Your task to perform on an android device: choose inbox layout in the gmail app Image 0: 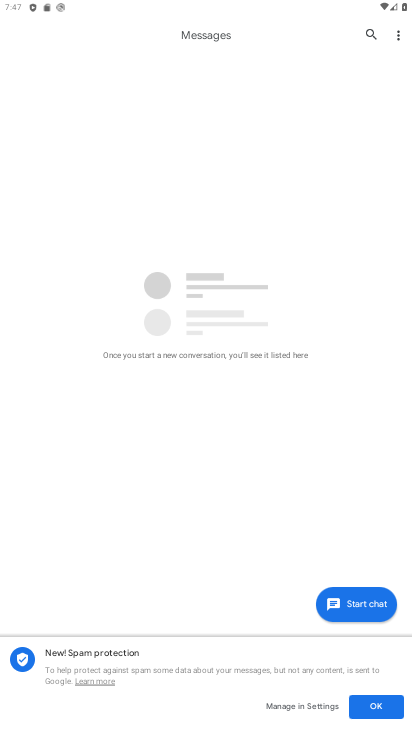
Step 0: press home button
Your task to perform on an android device: choose inbox layout in the gmail app Image 1: 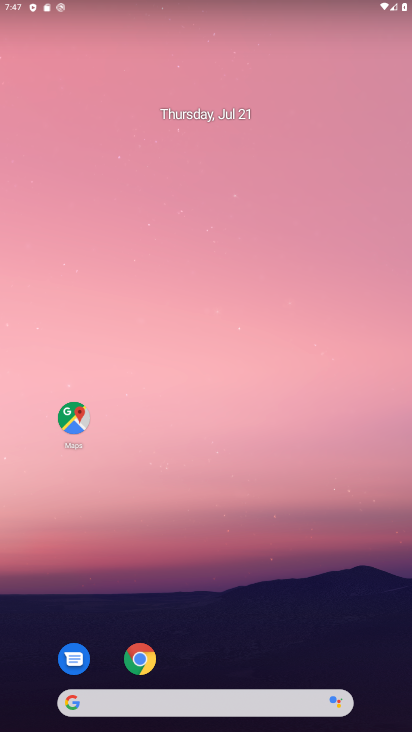
Step 1: drag from (306, 668) to (259, 143)
Your task to perform on an android device: choose inbox layout in the gmail app Image 2: 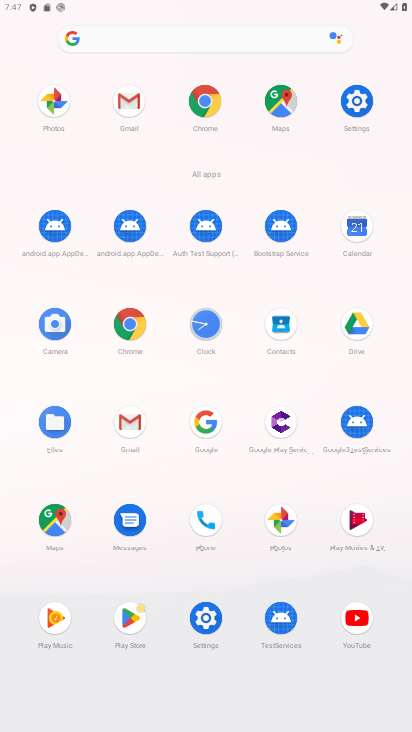
Step 2: click (129, 102)
Your task to perform on an android device: choose inbox layout in the gmail app Image 3: 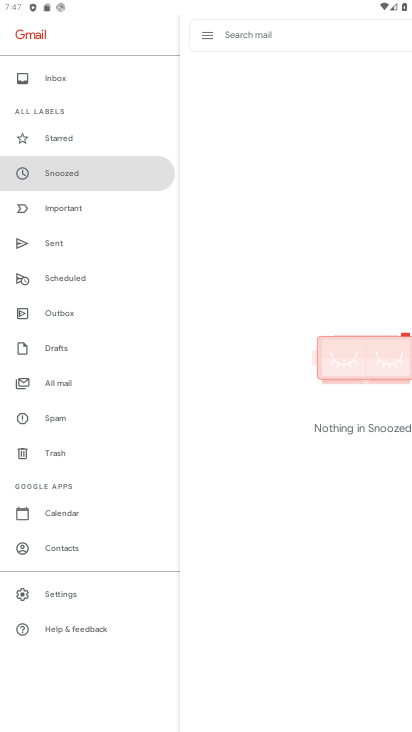
Step 3: click (74, 589)
Your task to perform on an android device: choose inbox layout in the gmail app Image 4: 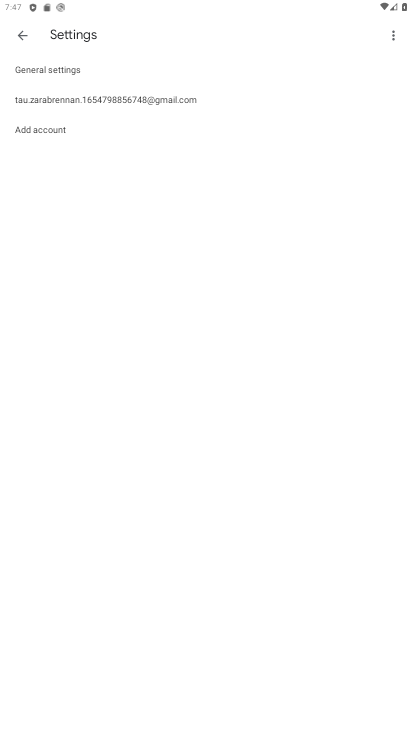
Step 4: click (73, 101)
Your task to perform on an android device: choose inbox layout in the gmail app Image 5: 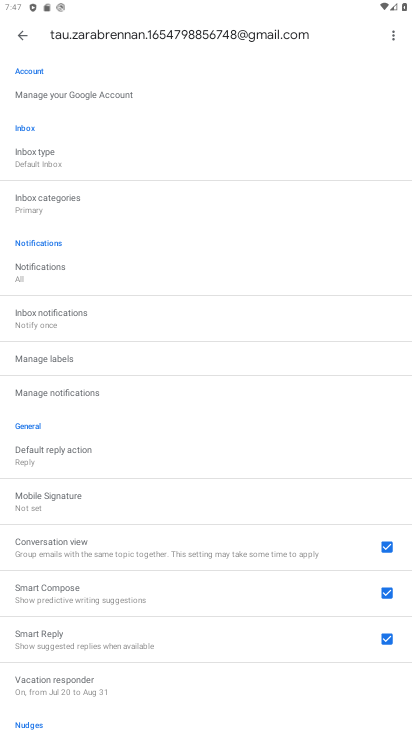
Step 5: click (84, 157)
Your task to perform on an android device: choose inbox layout in the gmail app Image 6: 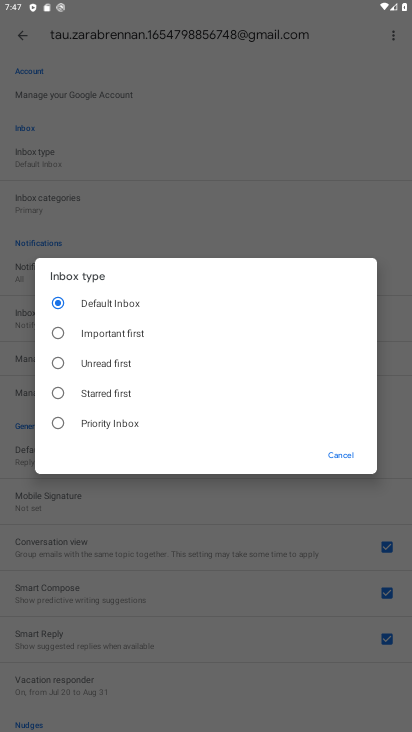
Step 6: click (90, 340)
Your task to perform on an android device: choose inbox layout in the gmail app Image 7: 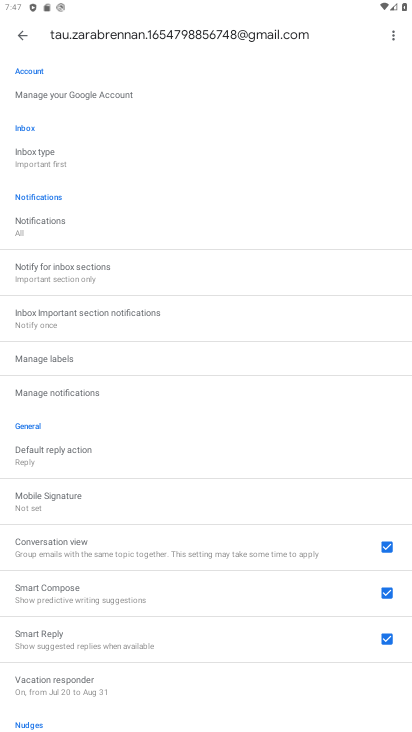
Step 7: task complete